Your task to perform on an android device: toggle wifi Image 0: 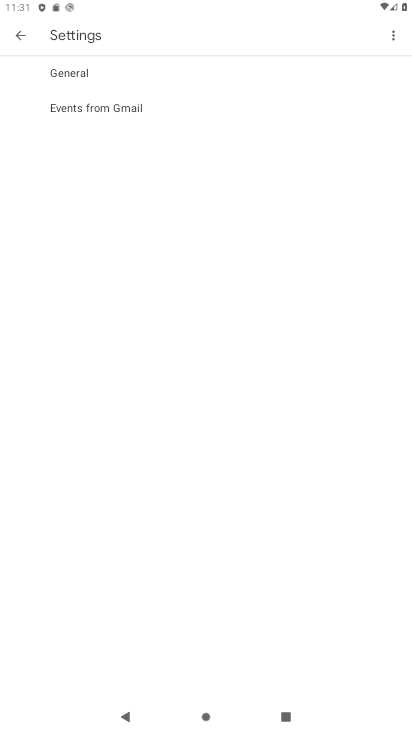
Step 0: press home button
Your task to perform on an android device: toggle wifi Image 1: 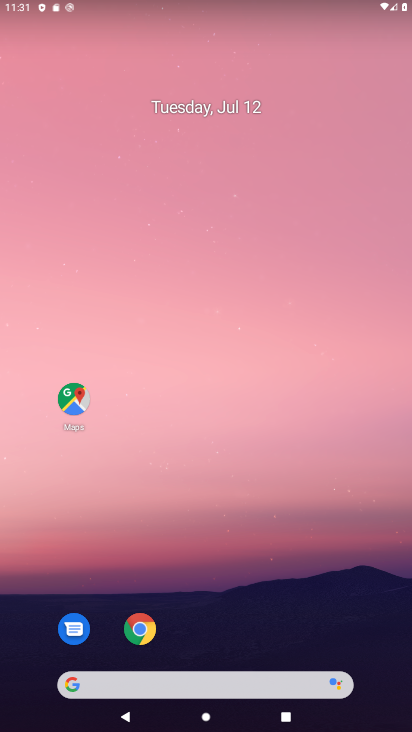
Step 1: drag from (173, 653) to (283, 108)
Your task to perform on an android device: toggle wifi Image 2: 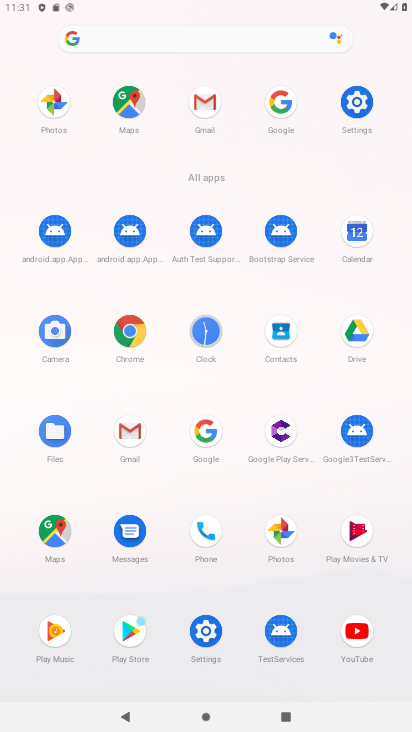
Step 2: click (113, 634)
Your task to perform on an android device: toggle wifi Image 3: 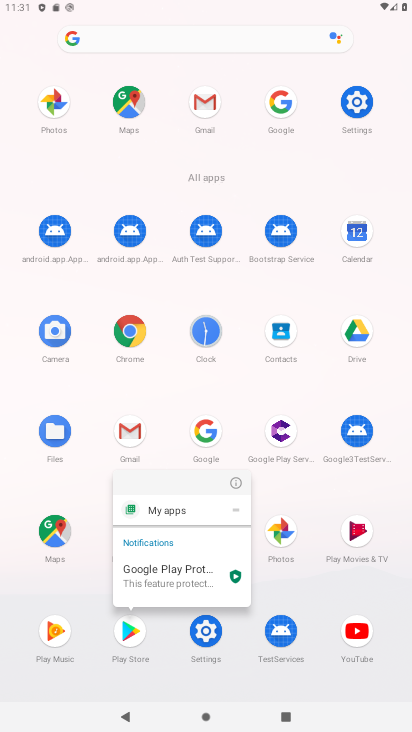
Step 3: click (212, 643)
Your task to perform on an android device: toggle wifi Image 4: 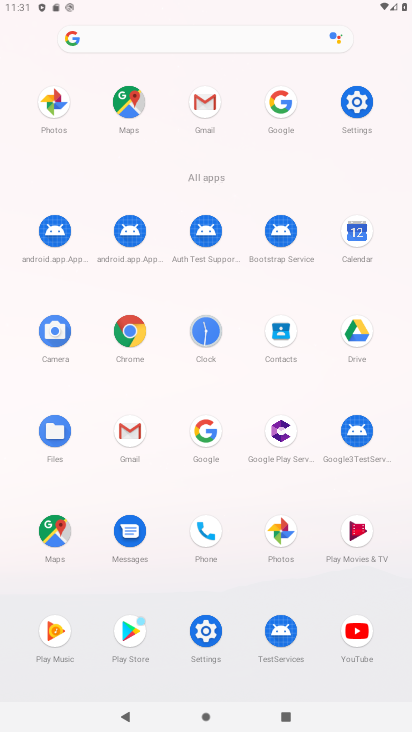
Step 4: click (211, 643)
Your task to perform on an android device: toggle wifi Image 5: 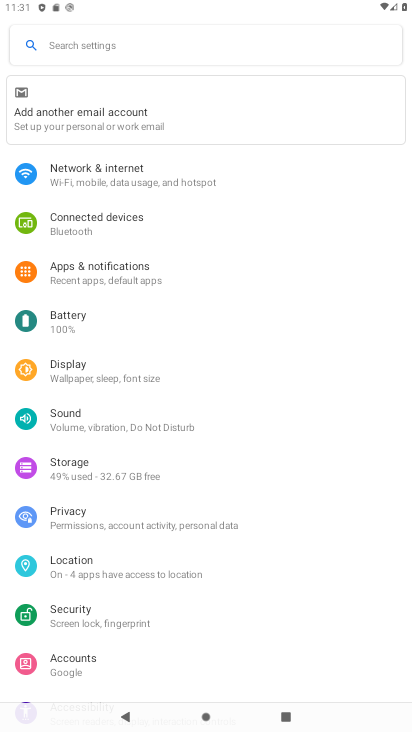
Step 5: click (131, 184)
Your task to perform on an android device: toggle wifi Image 6: 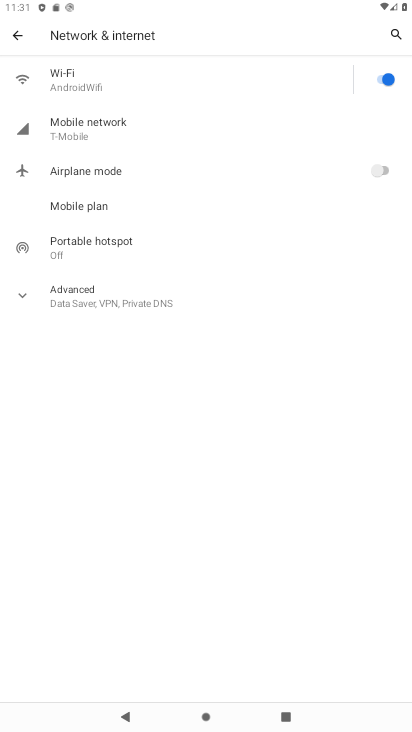
Step 6: click (378, 74)
Your task to perform on an android device: toggle wifi Image 7: 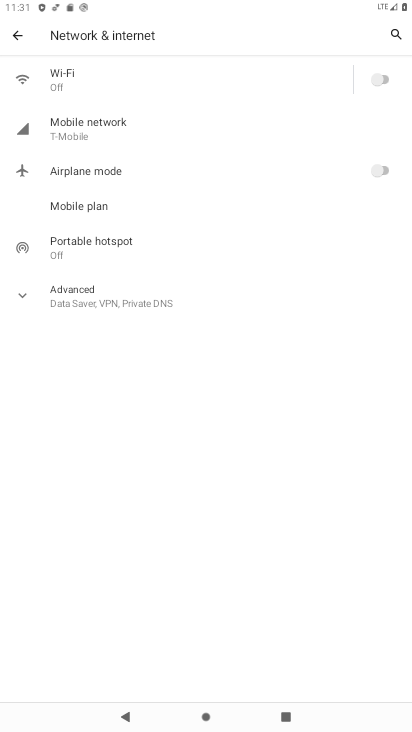
Step 7: task complete